Your task to perform on an android device: search for starred emails in the gmail app Image 0: 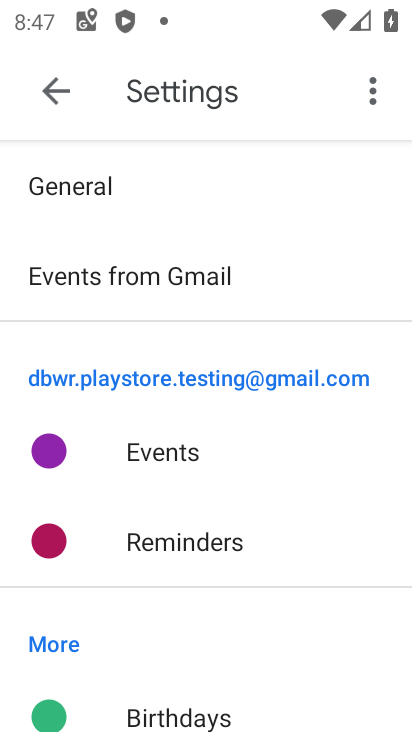
Step 0: press home button
Your task to perform on an android device: search for starred emails in the gmail app Image 1: 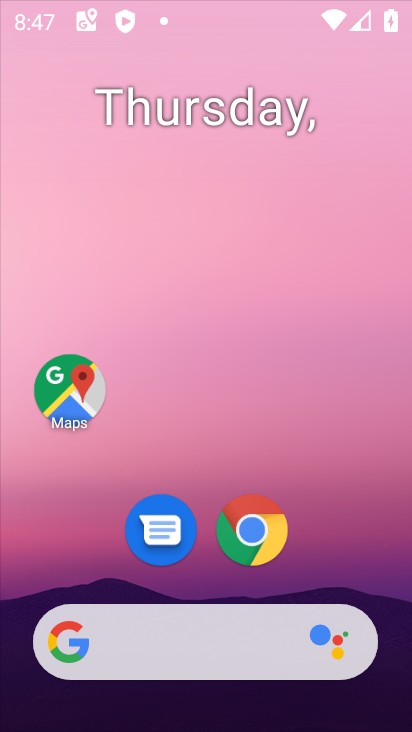
Step 1: drag from (286, 666) to (265, 330)
Your task to perform on an android device: search for starred emails in the gmail app Image 2: 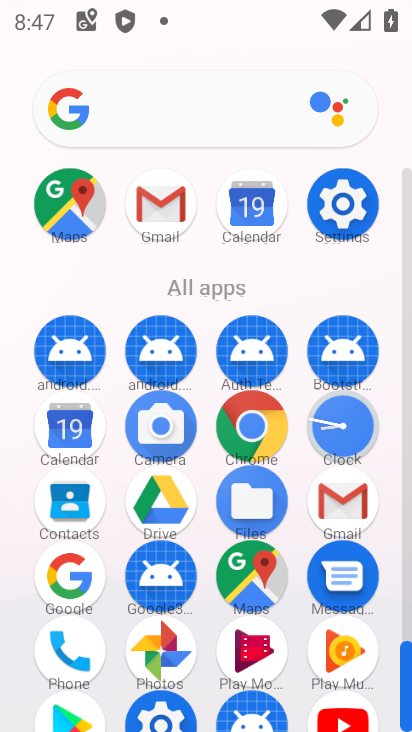
Step 2: click (346, 518)
Your task to perform on an android device: search for starred emails in the gmail app Image 3: 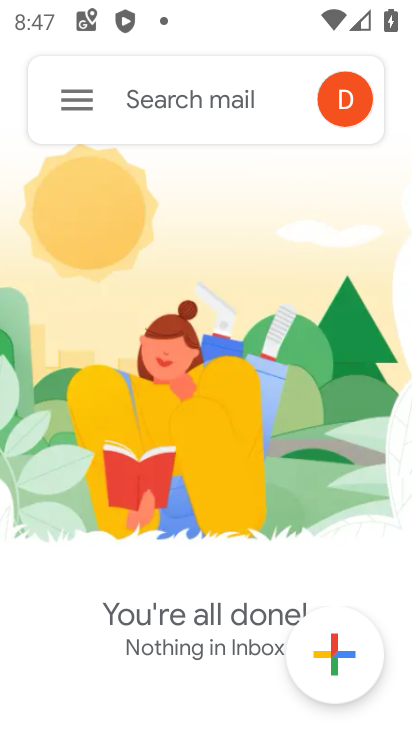
Step 3: click (85, 97)
Your task to perform on an android device: search for starred emails in the gmail app Image 4: 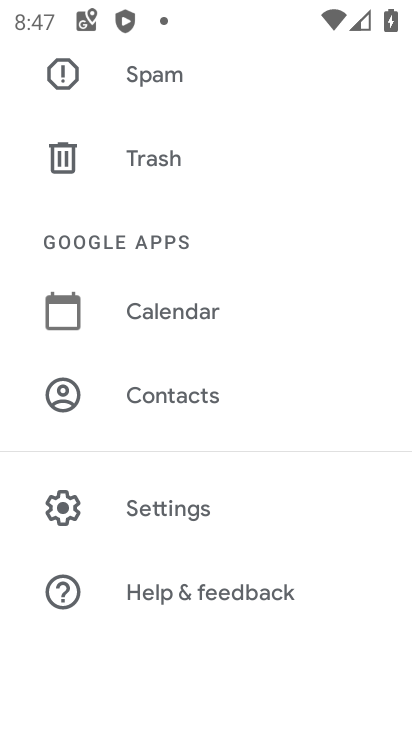
Step 4: drag from (256, 226) to (251, 618)
Your task to perform on an android device: search for starred emails in the gmail app Image 5: 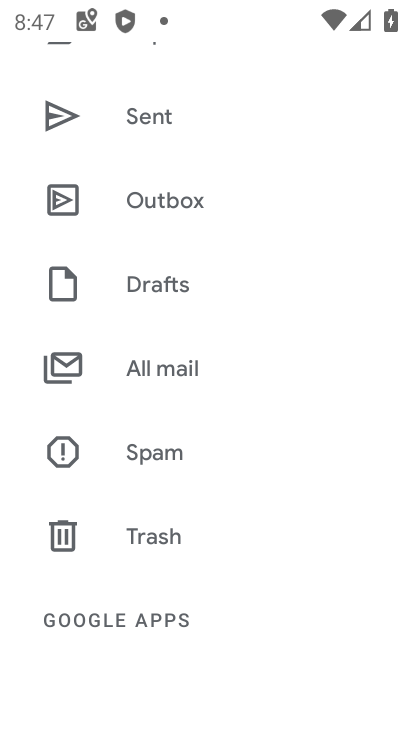
Step 5: drag from (209, 251) to (203, 617)
Your task to perform on an android device: search for starred emails in the gmail app Image 6: 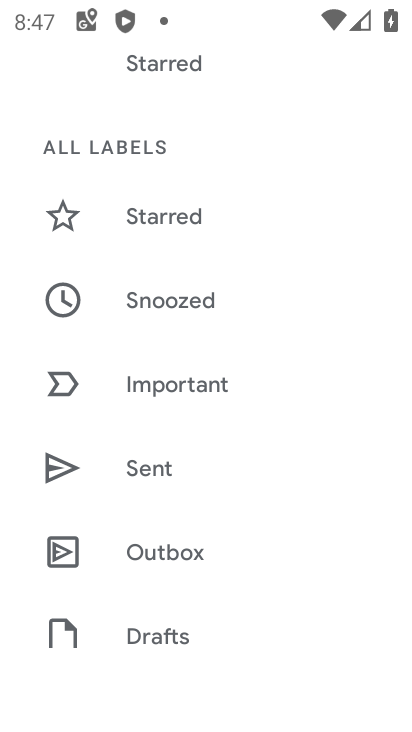
Step 6: click (164, 226)
Your task to perform on an android device: search for starred emails in the gmail app Image 7: 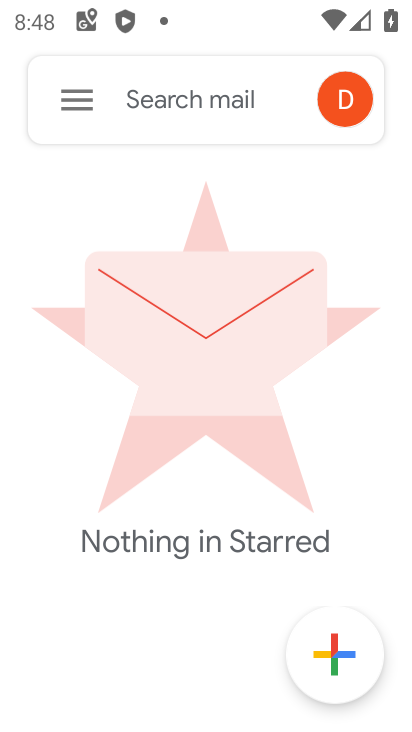
Step 7: task complete